Your task to perform on an android device: Open network settings Image 0: 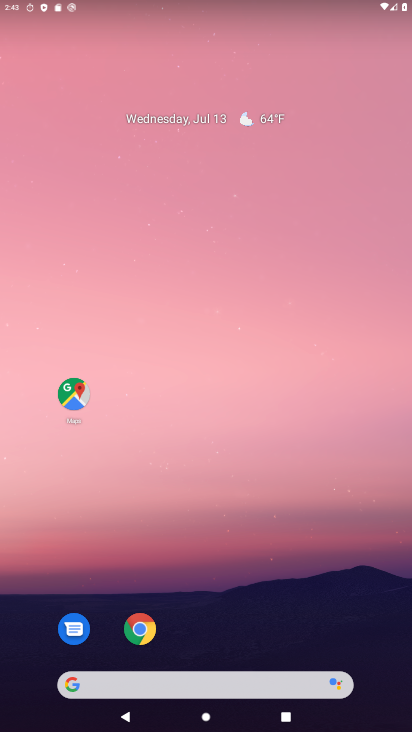
Step 0: drag from (258, 617) to (277, 38)
Your task to perform on an android device: Open network settings Image 1: 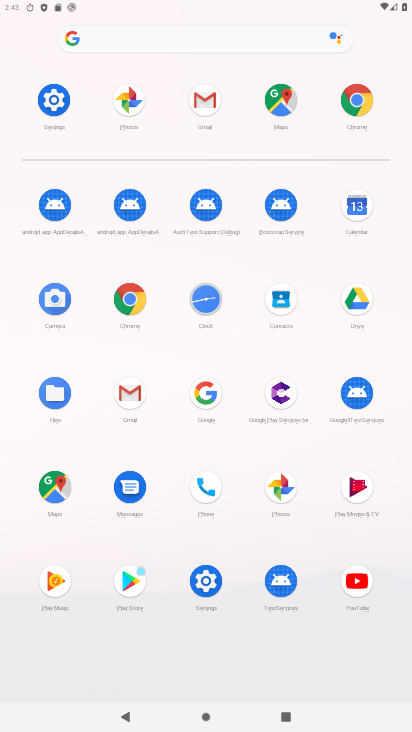
Step 1: click (58, 107)
Your task to perform on an android device: Open network settings Image 2: 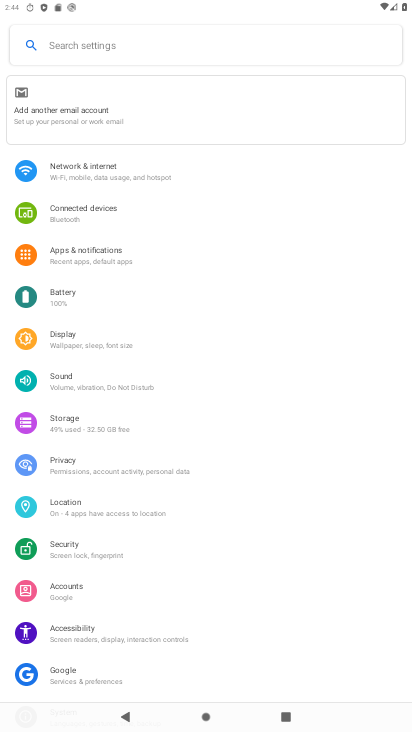
Step 2: click (93, 166)
Your task to perform on an android device: Open network settings Image 3: 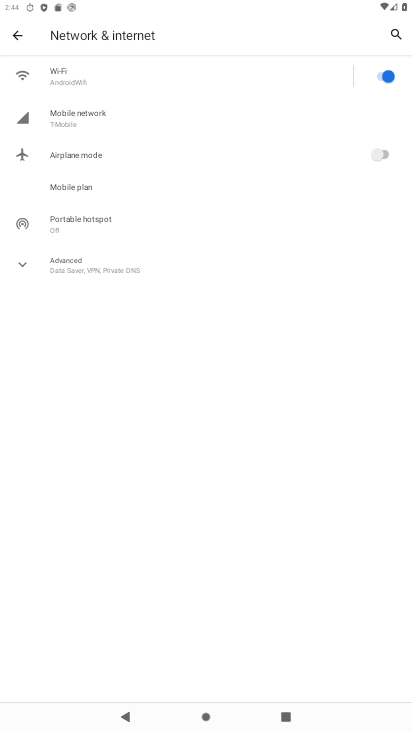
Step 3: task complete